Your task to perform on an android device: Go to Wikipedia Image 0: 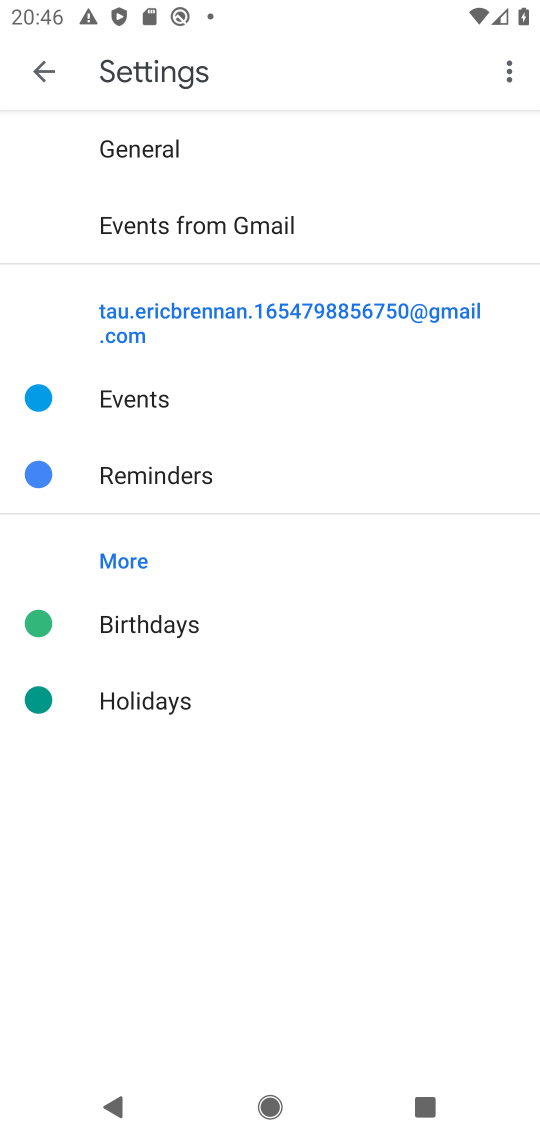
Step 0: press home button
Your task to perform on an android device: Go to Wikipedia Image 1: 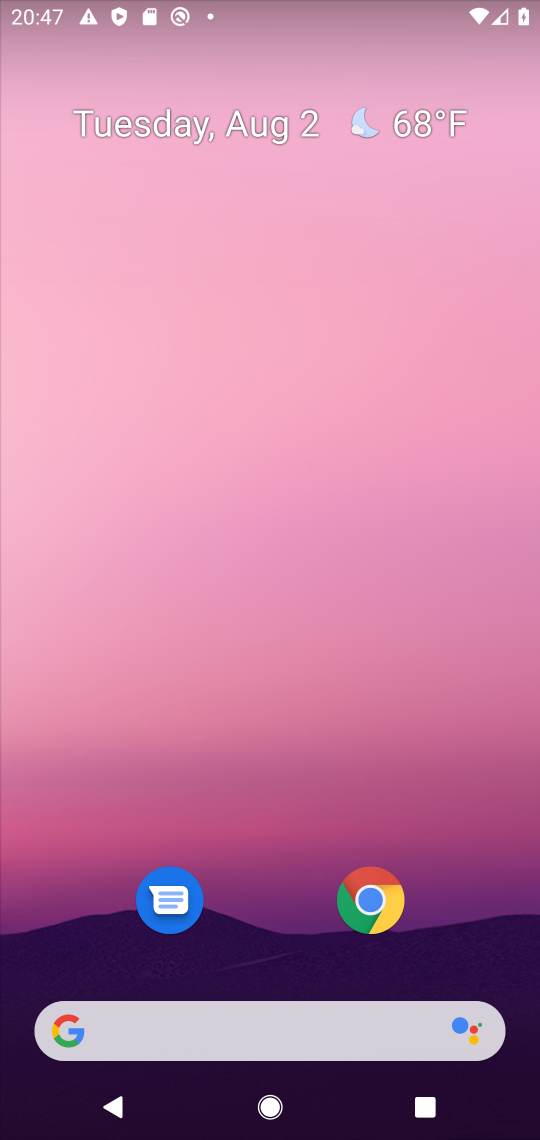
Step 1: click (377, 907)
Your task to perform on an android device: Go to Wikipedia Image 2: 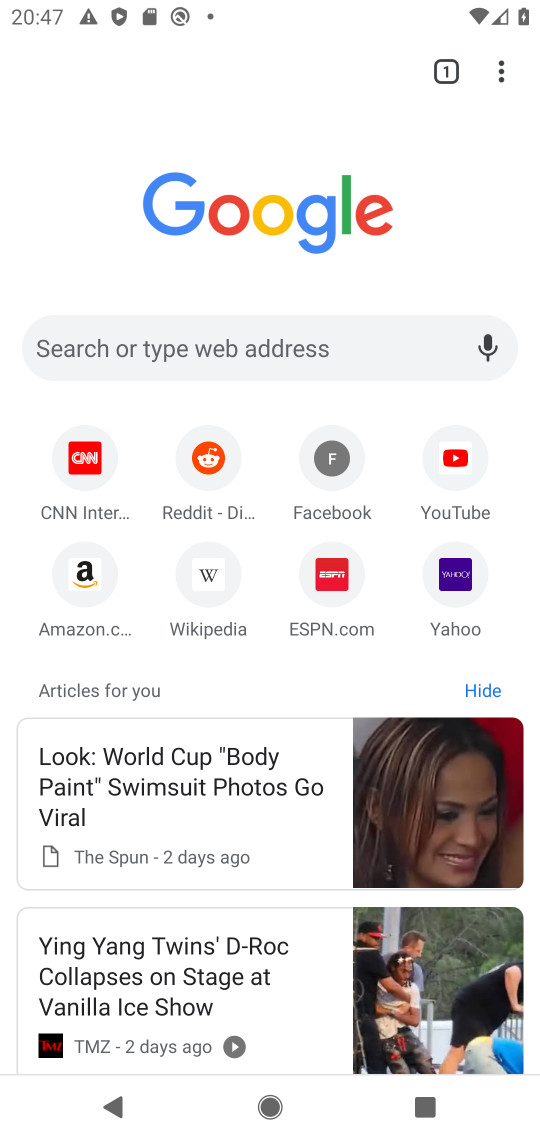
Step 2: click (215, 581)
Your task to perform on an android device: Go to Wikipedia Image 3: 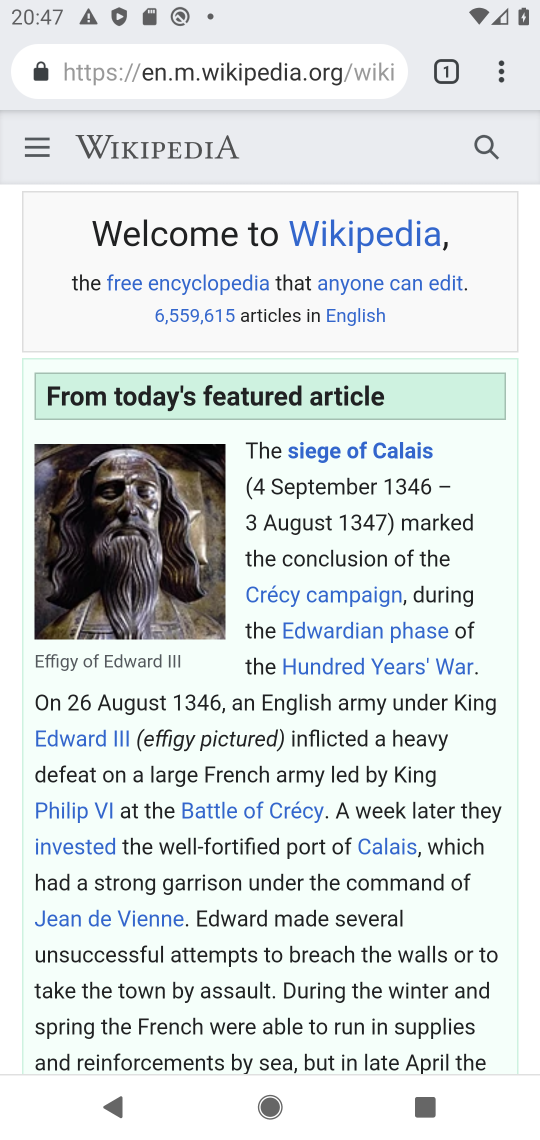
Step 3: task complete